Your task to perform on an android device: Show me productivity apps on the Play Store Image 0: 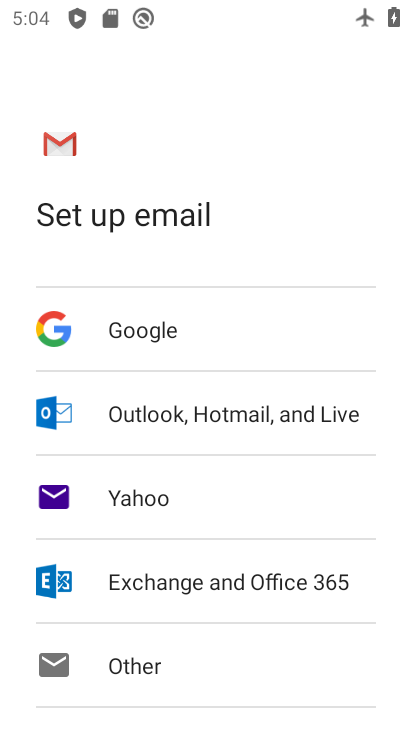
Step 0: press home button
Your task to perform on an android device: Show me productivity apps on the Play Store Image 1: 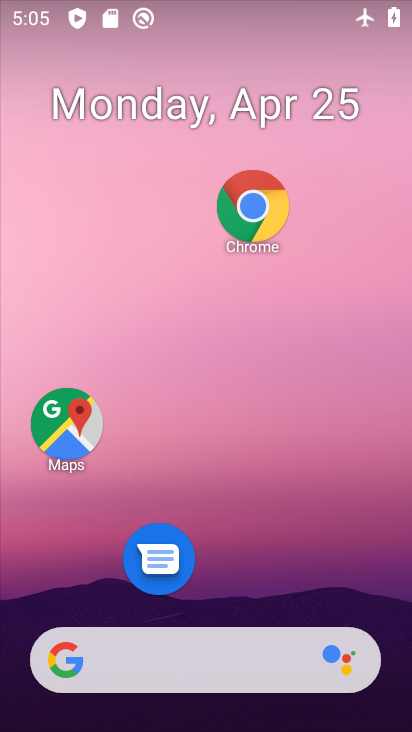
Step 1: drag from (247, 555) to (178, 111)
Your task to perform on an android device: Show me productivity apps on the Play Store Image 2: 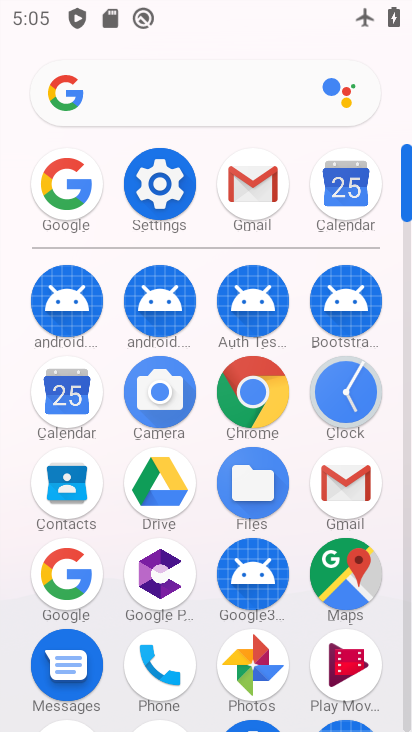
Step 2: drag from (205, 437) to (220, 160)
Your task to perform on an android device: Show me productivity apps on the Play Store Image 3: 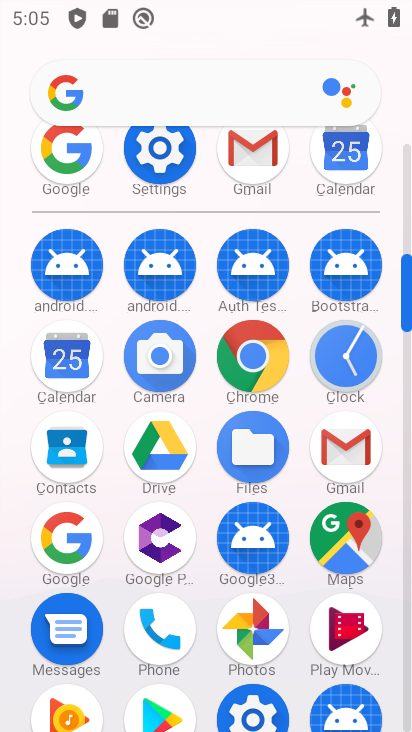
Step 3: click (157, 691)
Your task to perform on an android device: Show me productivity apps on the Play Store Image 4: 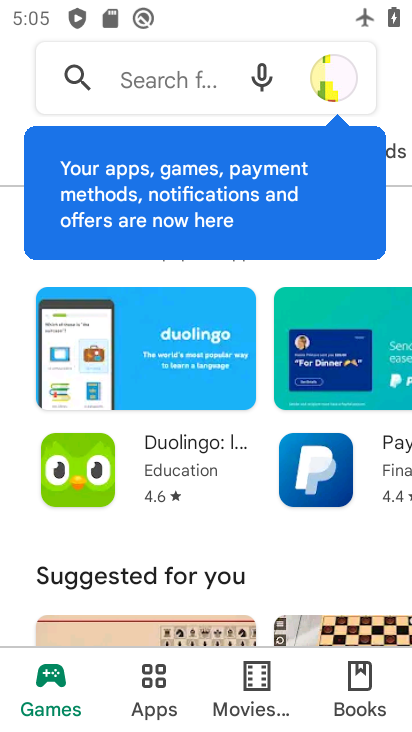
Step 4: click (163, 704)
Your task to perform on an android device: Show me productivity apps on the Play Store Image 5: 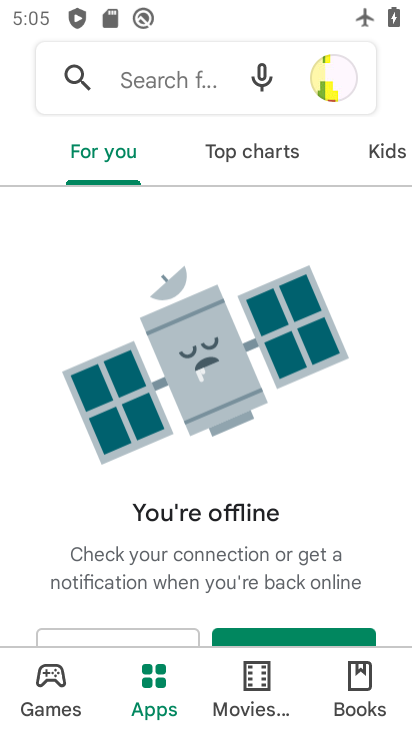
Step 5: drag from (320, 154) to (40, 216)
Your task to perform on an android device: Show me productivity apps on the Play Store Image 6: 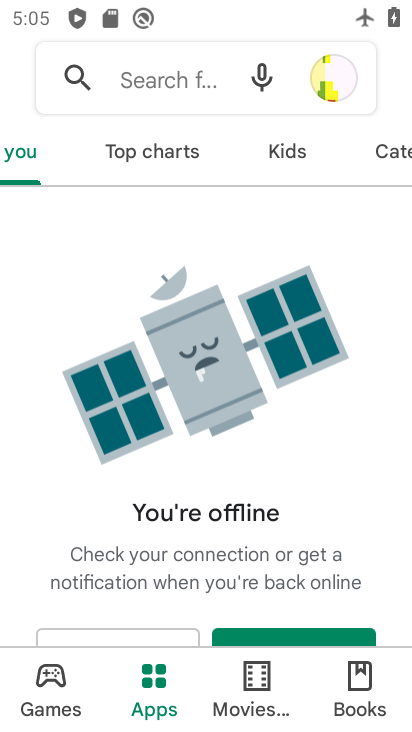
Step 6: drag from (327, 154) to (135, 179)
Your task to perform on an android device: Show me productivity apps on the Play Store Image 7: 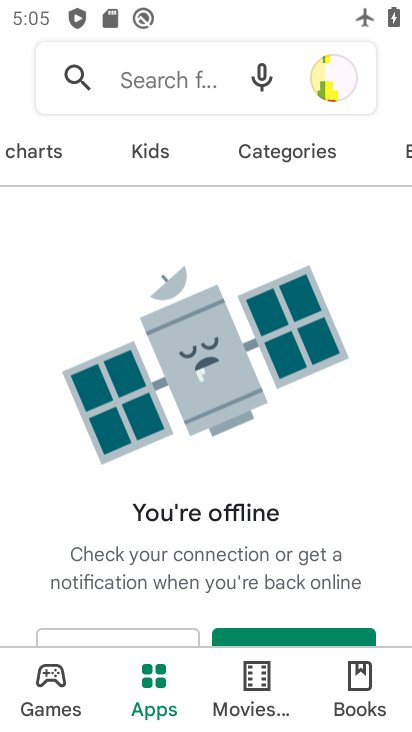
Step 7: click (284, 148)
Your task to perform on an android device: Show me productivity apps on the Play Store Image 8: 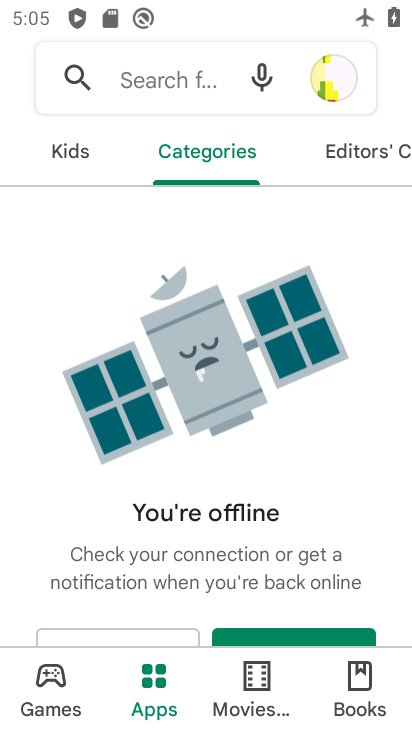
Step 8: task complete